Your task to perform on an android device: Go to settings Image 0: 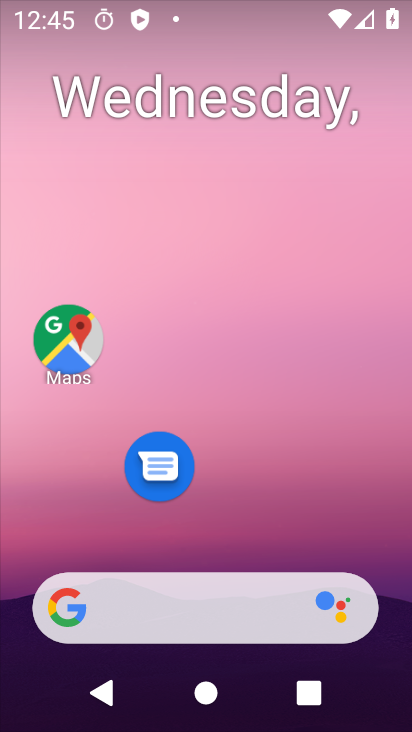
Step 0: drag from (394, 524) to (411, 24)
Your task to perform on an android device: Go to settings Image 1: 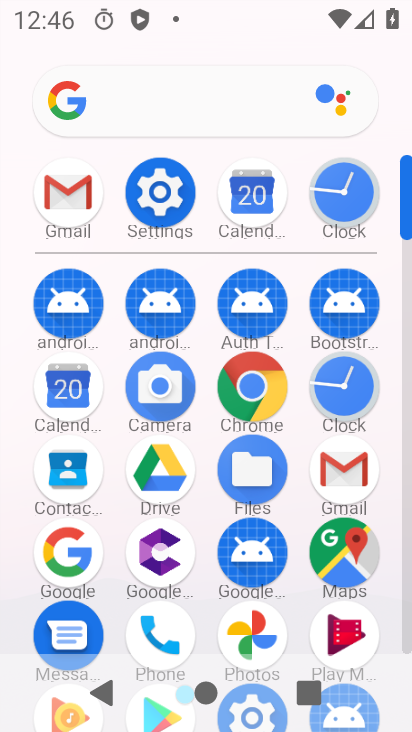
Step 1: click (144, 199)
Your task to perform on an android device: Go to settings Image 2: 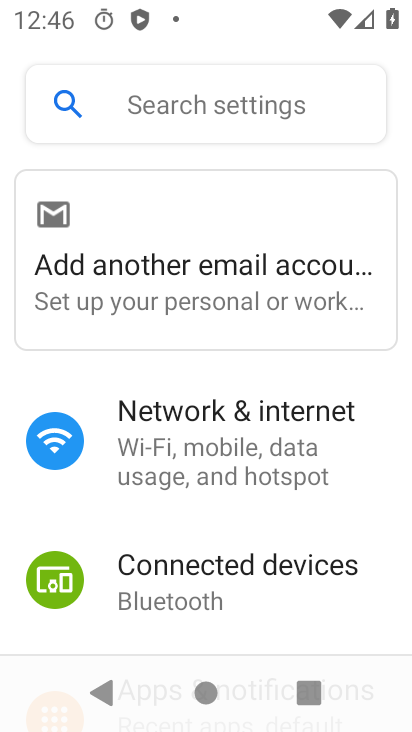
Step 2: task complete